Your task to perform on an android device: change notification settings in the gmail app Image 0: 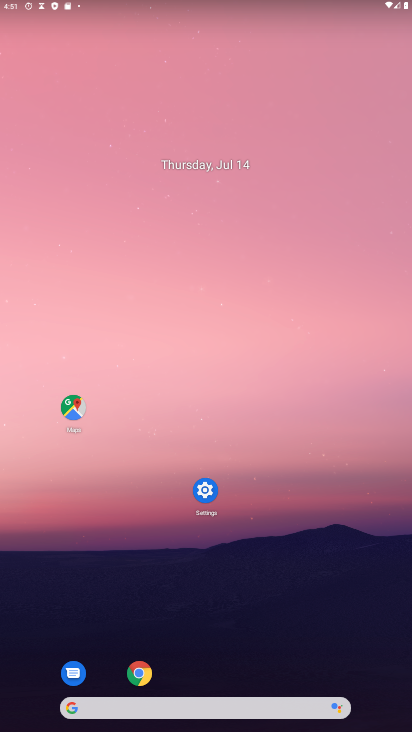
Step 0: drag from (266, 725) to (232, 184)
Your task to perform on an android device: change notification settings in the gmail app Image 1: 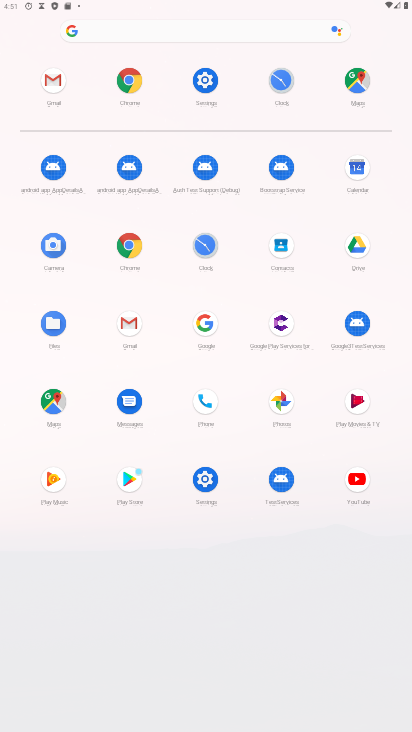
Step 1: click (118, 325)
Your task to perform on an android device: change notification settings in the gmail app Image 2: 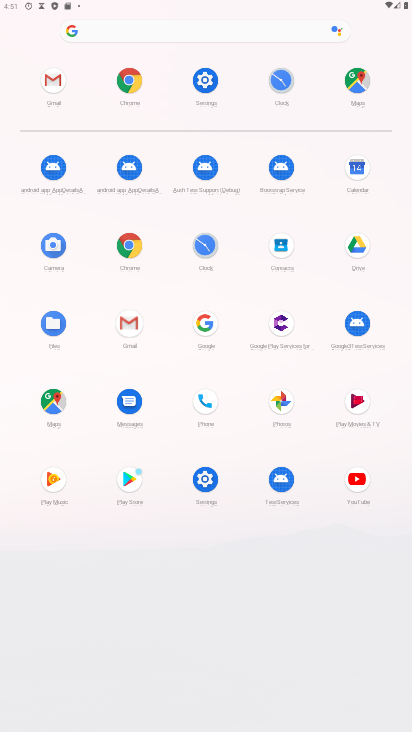
Step 2: click (124, 323)
Your task to perform on an android device: change notification settings in the gmail app Image 3: 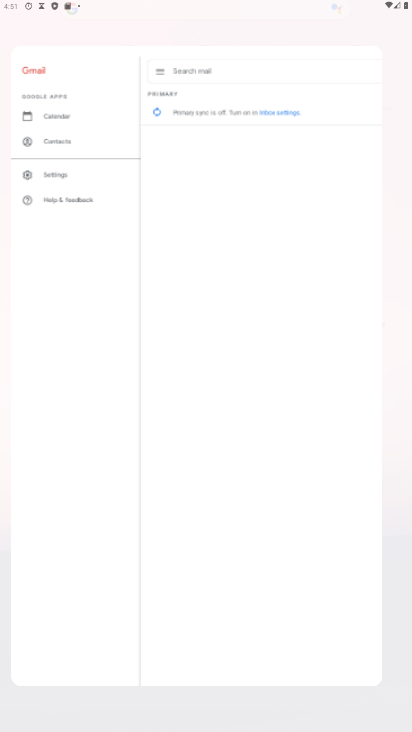
Step 3: click (124, 323)
Your task to perform on an android device: change notification settings in the gmail app Image 4: 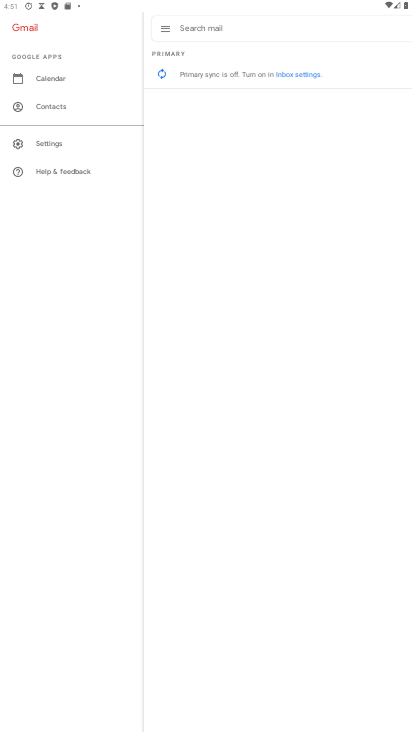
Step 4: click (124, 323)
Your task to perform on an android device: change notification settings in the gmail app Image 5: 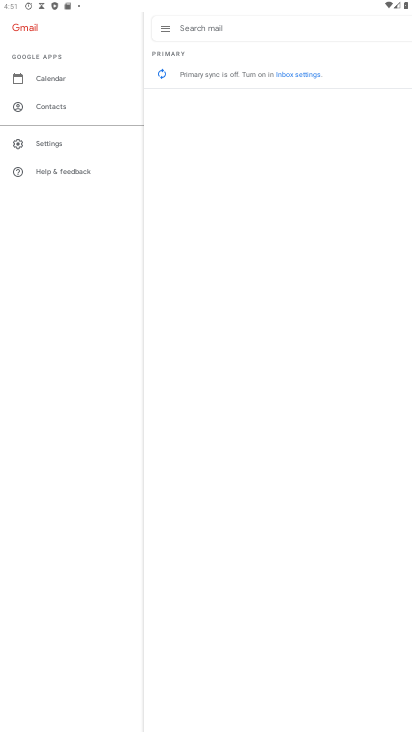
Step 5: click (124, 323)
Your task to perform on an android device: change notification settings in the gmail app Image 6: 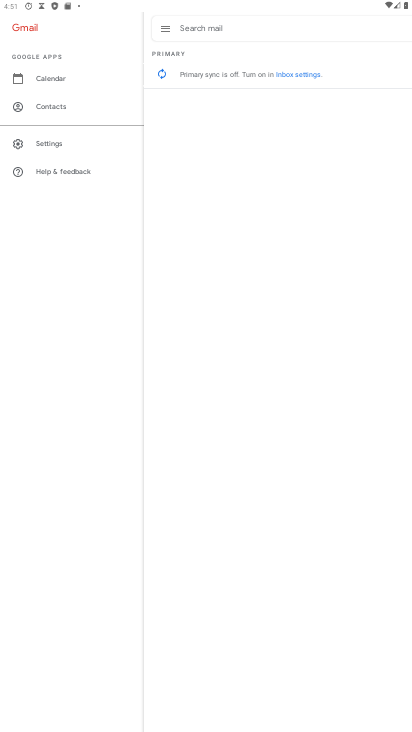
Step 6: click (54, 135)
Your task to perform on an android device: change notification settings in the gmail app Image 7: 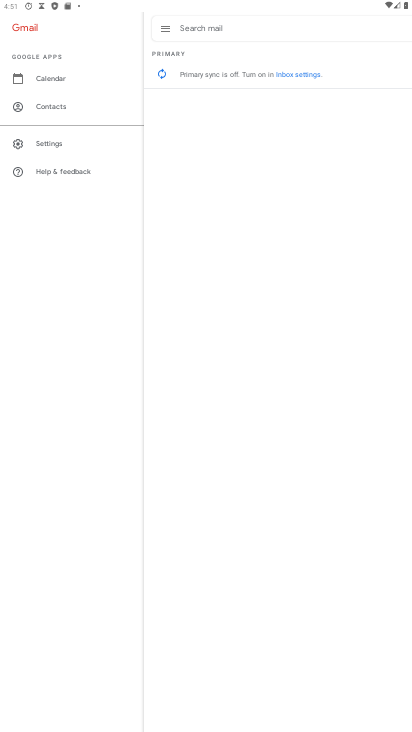
Step 7: click (48, 139)
Your task to perform on an android device: change notification settings in the gmail app Image 8: 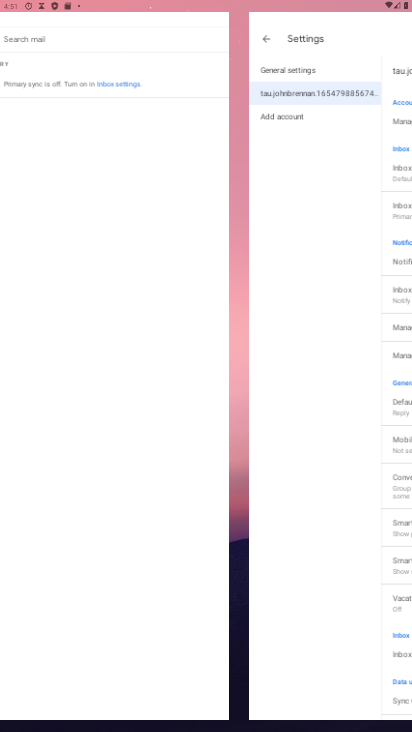
Step 8: click (48, 139)
Your task to perform on an android device: change notification settings in the gmail app Image 9: 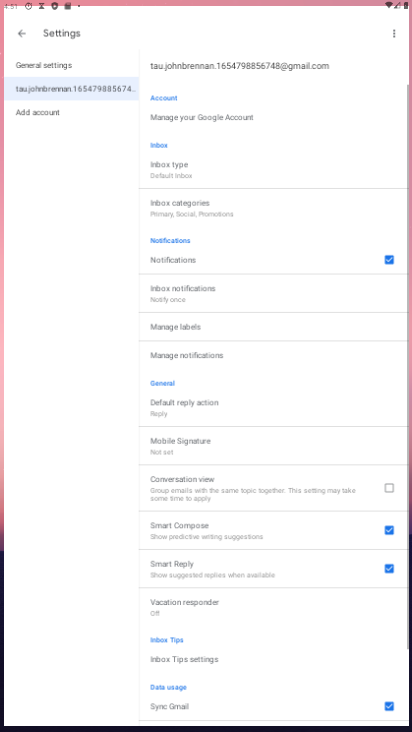
Step 9: click (48, 139)
Your task to perform on an android device: change notification settings in the gmail app Image 10: 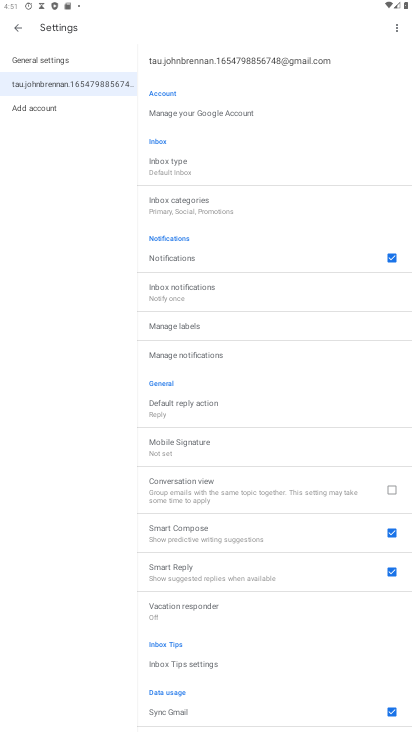
Step 10: click (157, 249)
Your task to perform on an android device: change notification settings in the gmail app Image 11: 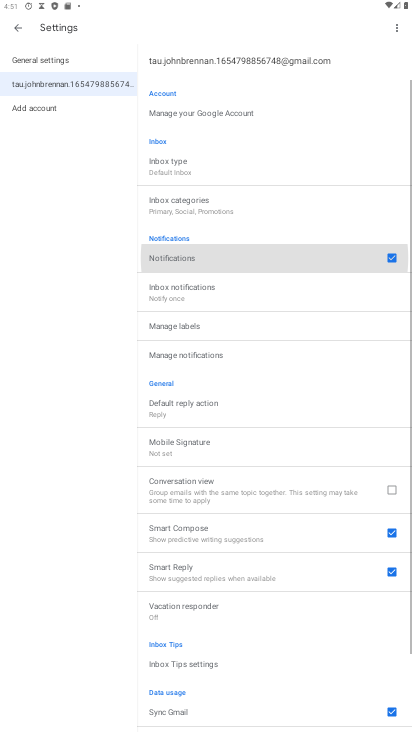
Step 11: click (162, 250)
Your task to perform on an android device: change notification settings in the gmail app Image 12: 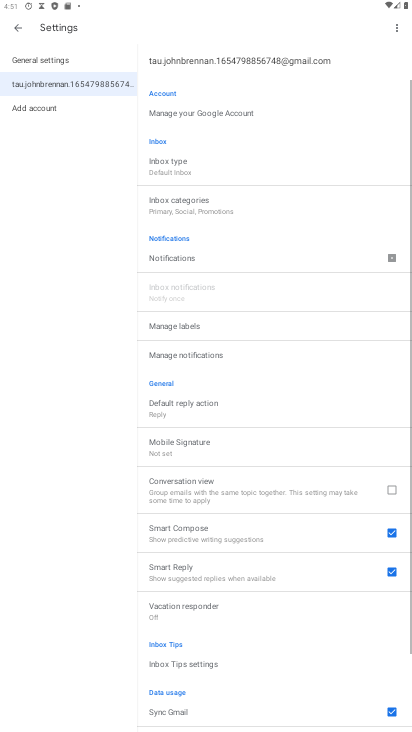
Step 12: click (162, 250)
Your task to perform on an android device: change notification settings in the gmail app Image 13: 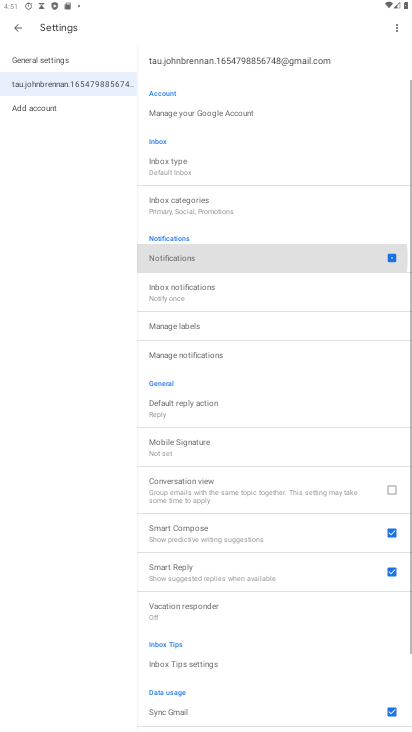
Step 13: click (163, 250)
Your task to perform on an android device: change notification settings in the gmail app Image 14: 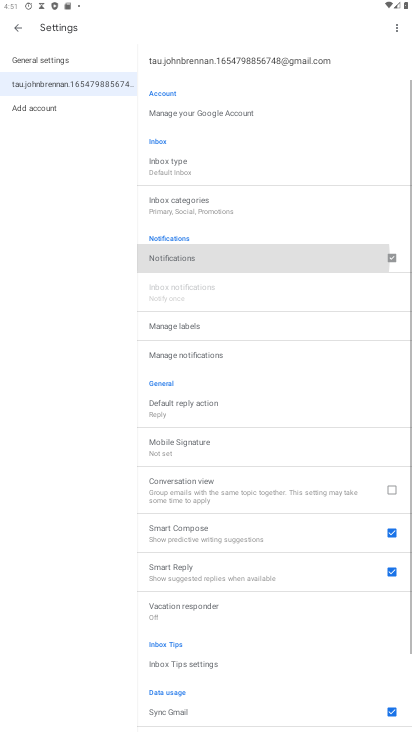
Step 14: click (166, 254)
Your task to perform on an android device: change notification settings in the gmail app Image 15: 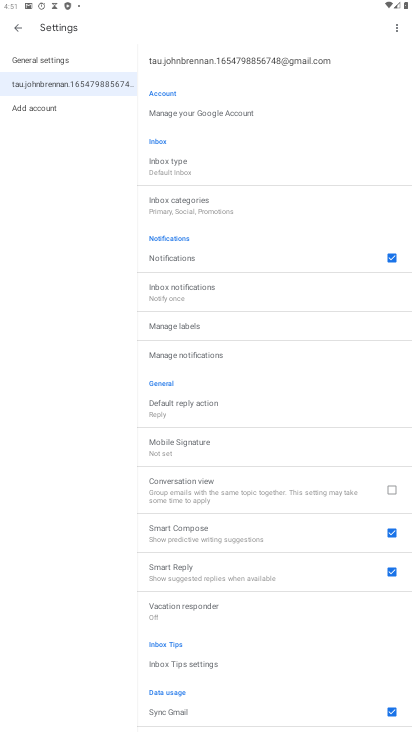
Step 15: click (176, 257)
Your task to perform on an android device: change notification settings in the gmail app Image 16: 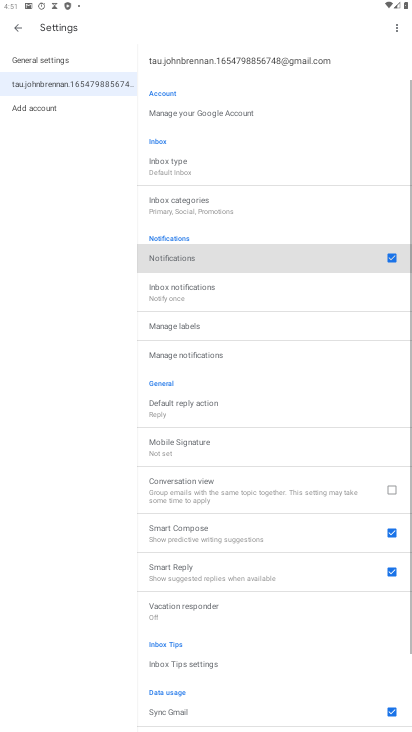
Step 16: click (176, 257)
Your task to perform on an android device: change notification settings in the gmail app Image 17: 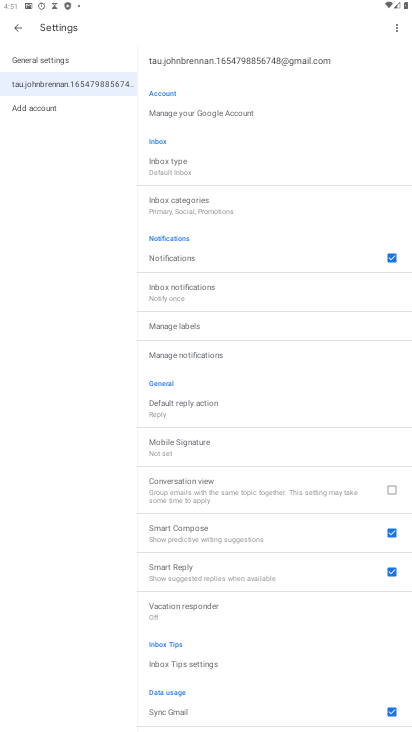
Step 17: click (390, 256)
Your task to perform on an android device: change notification settings in the gmail app Image 18: 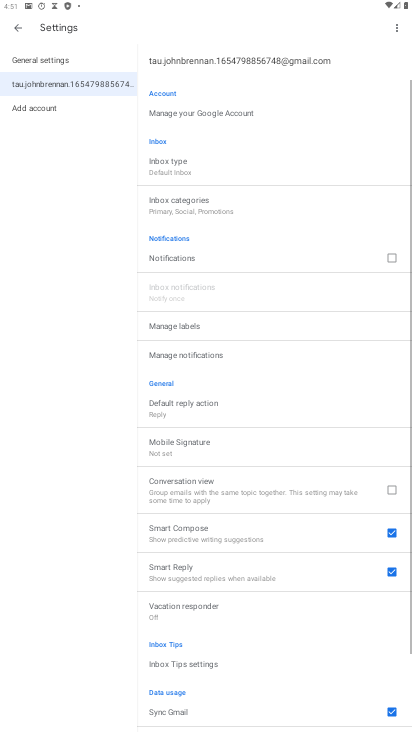
Step 18: task complete